Your task to perform on an android device: turn on location history Image 0: 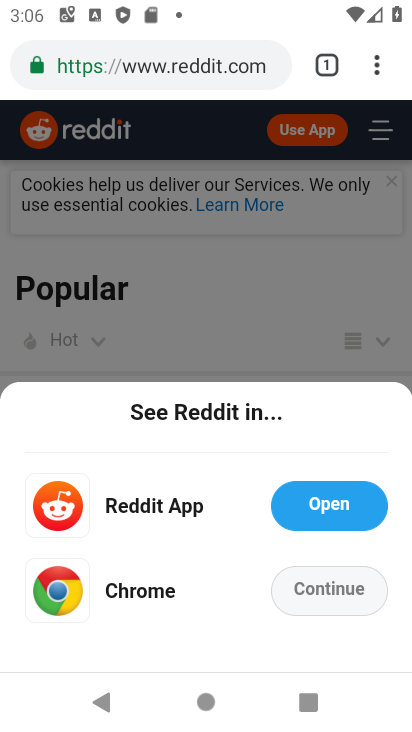
Step 0: press home button
Your task to perform on an android device: turn on location history Image 1: 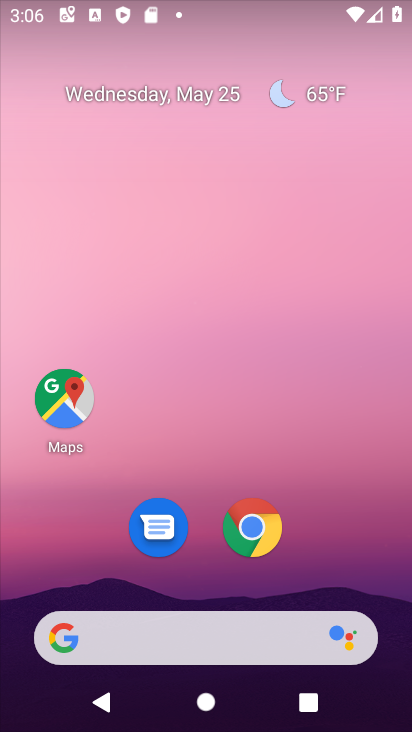
Step 1: drag from (362, 613) to (334, 10)
Your task to perform on an android device: turn on location history Image 2: 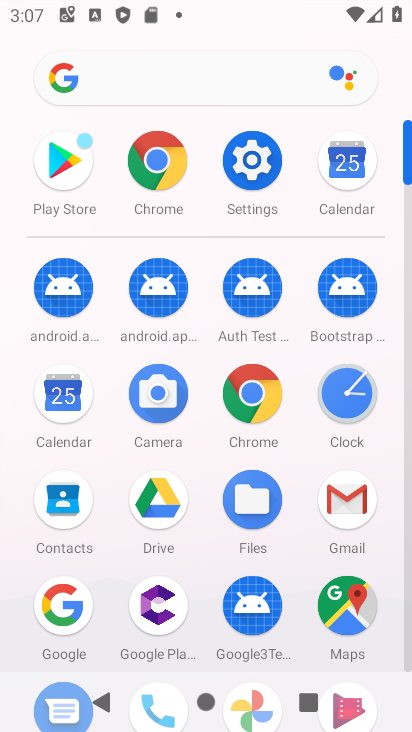
Step 2: click (275, 170)
Your task to perform on an android device: turn on location history Image 3: 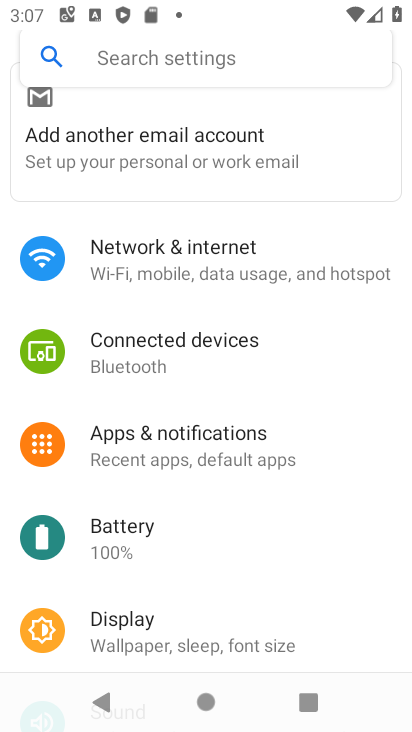
Step 3: drag from (210, 566) to (227, 61)
Your task to perform on an android device: turn on location history Image 4: 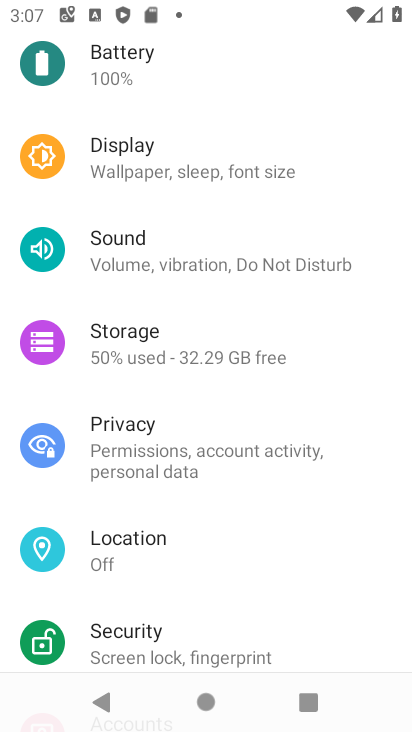
Step 4: click (156, 546)
Your task to perform on an android device: turn on location history Image 5: 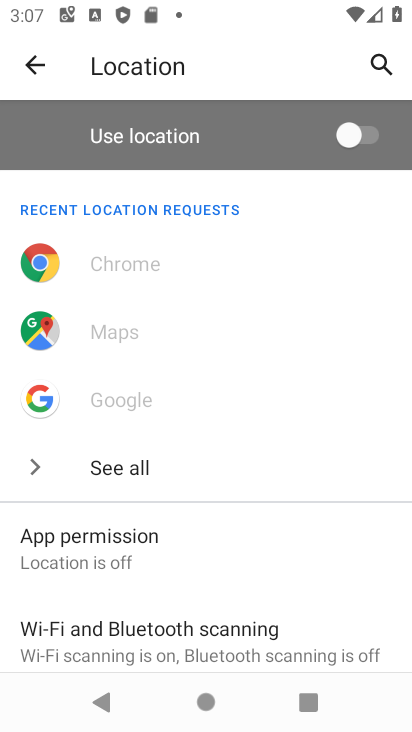
Step 5: drag from (113, 658) to (94, 192)
Your task to perform on an android device: turn on location history Image 6: 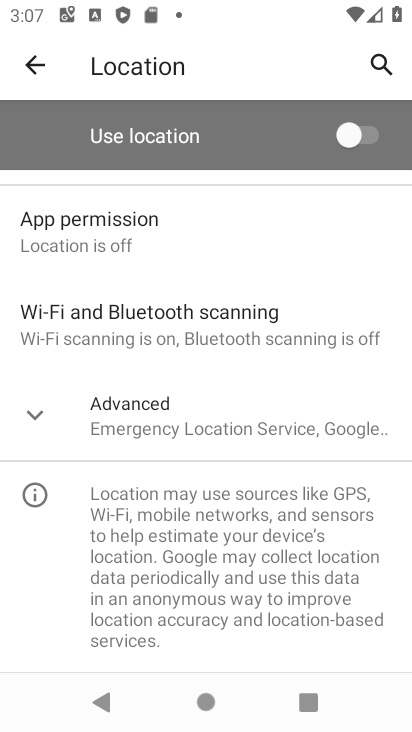
Step 6: click (125, 398)
Your task to perform on an android device: turn on location history Image 7: 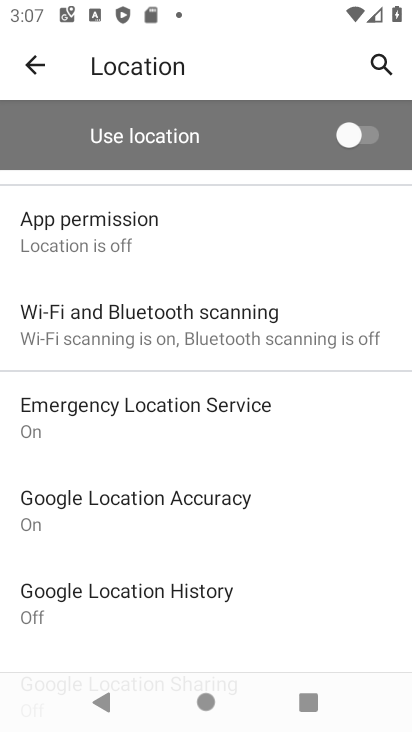
Step 7: click (178, 599)
Your task to perform on an android device: turn on location history Image 8: 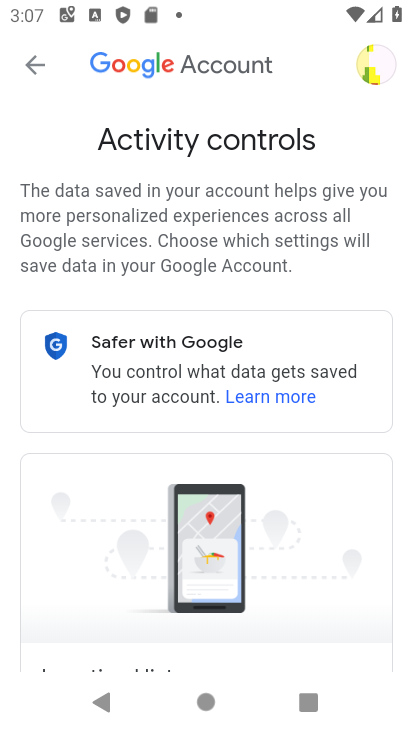
Step 8: task complete